Your task to perform on an android device: Open Google Image 0: 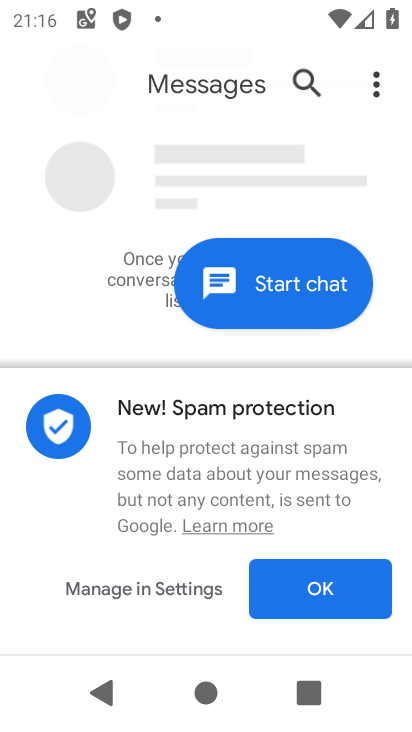
Step 0: press home button
Your task to perform on an android device: Open Google Image 1: 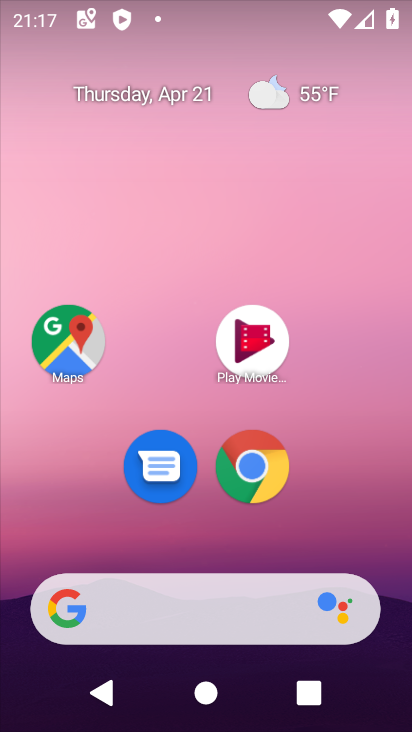
Step 1: drag from (316, 438) to (322, 141)
Your task to perform on an android device: Open Google Image 2: 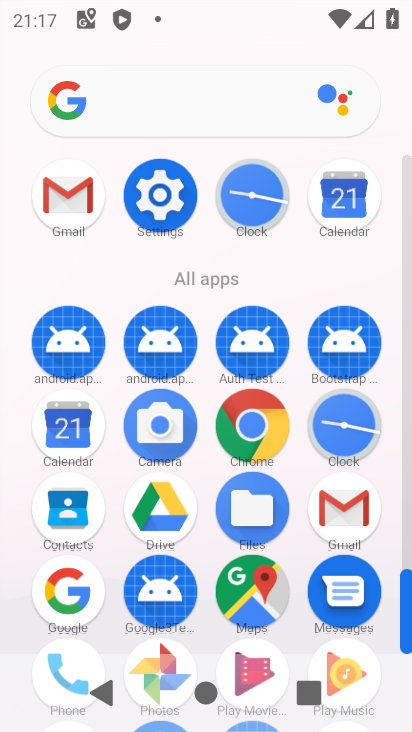
Step 2: drag from (303, 526) to (303, 385)
Your task to perform on an android device: Open Google Image 3: 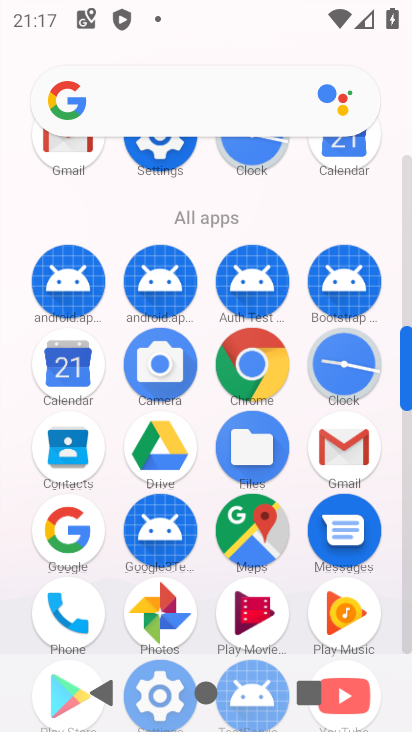
Step 3: drag from (200, 571) to (210, 288)
Your task to perform on an android device: Open Google Image 4: 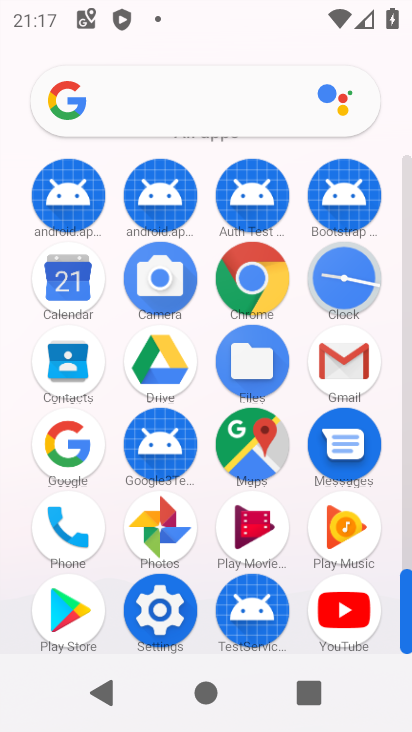
Step 4: click (82, 465)
Your task to perform on an android device: Open Google Image 5: 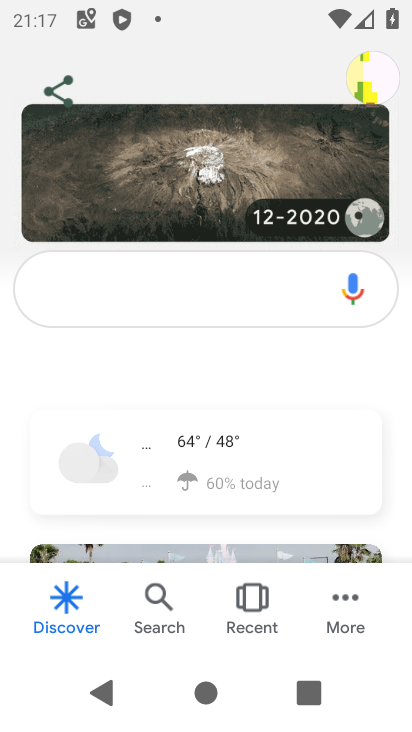
Step 5: task complete